Your task to perform on an android device: Open the web browser Image 0: 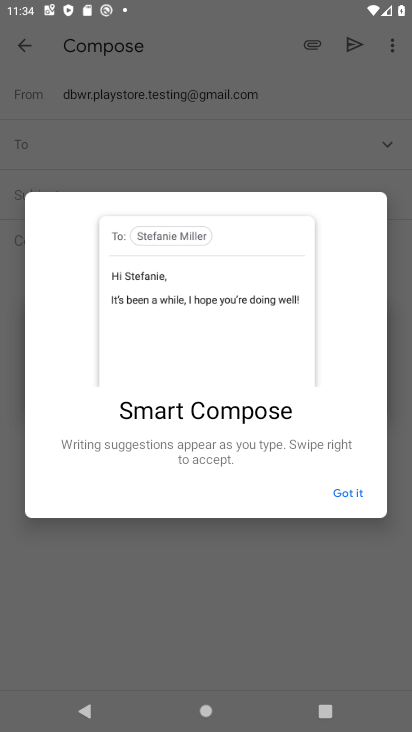
Step 0: press home button
Your task to perform on an android device: Open the web browser Image 1: 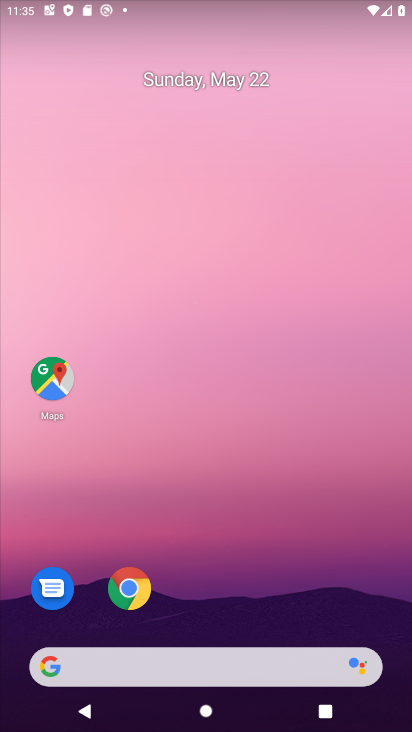
Step 1: click (150, 579)
Your task to perform on an android device: Open the web browser Image 2: 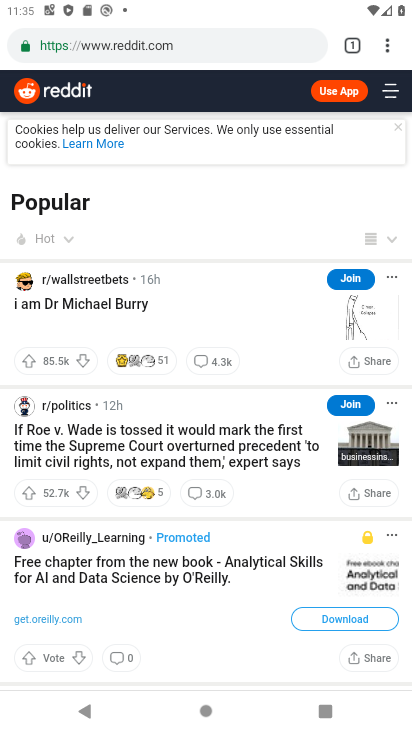
Step 2: click (181, 55)
Your task to perform on an android device: Open the web browser Image 3: 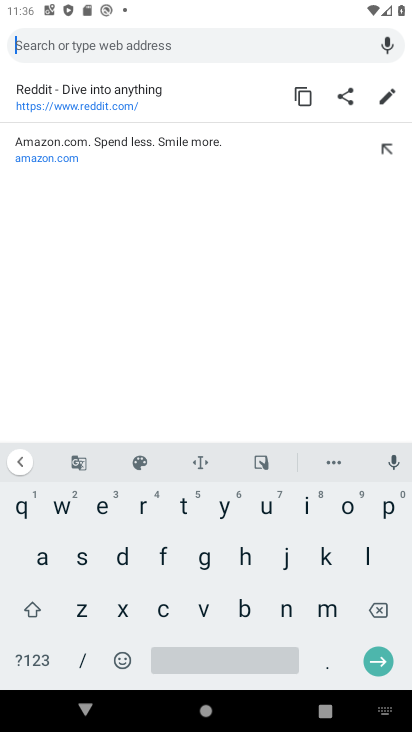
Step 3: task complete